Your task to perform on an android device: Open wifi settings Image 0: 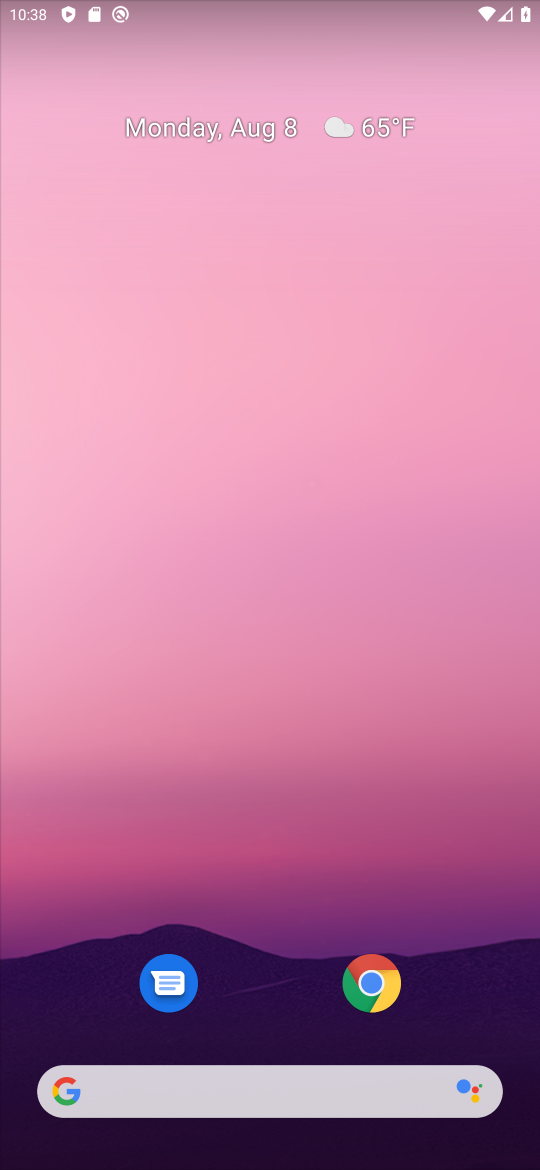
Step 0: drag from (326, 1054) to (307, 9)
Your task to perform on an android device: Open wifi settings Image 1: 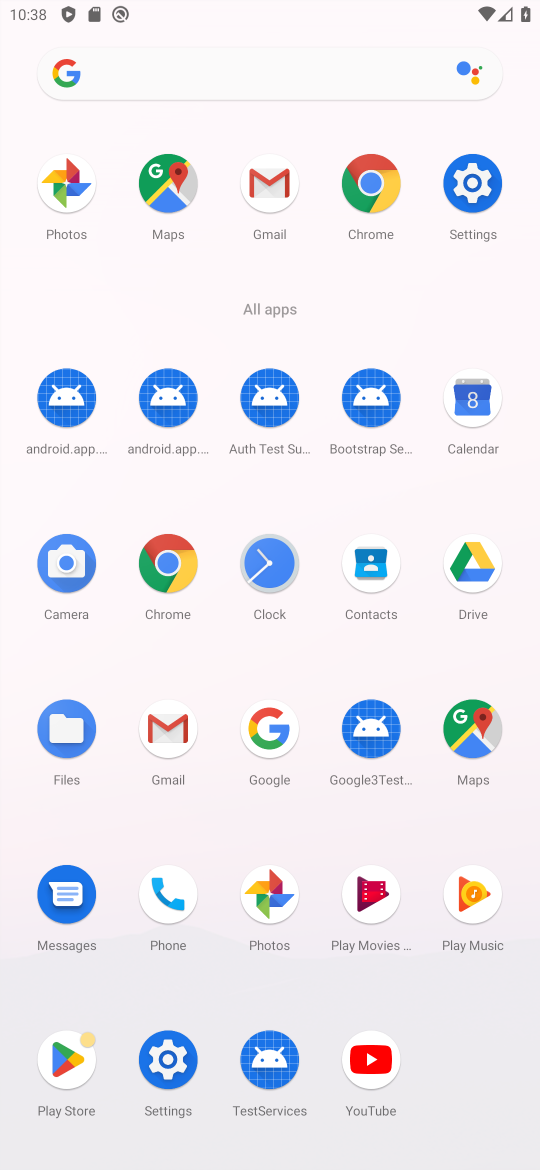
Step 1: click (162, 1087)
Your task to perform on an android device: Open wifi settings Image 2: 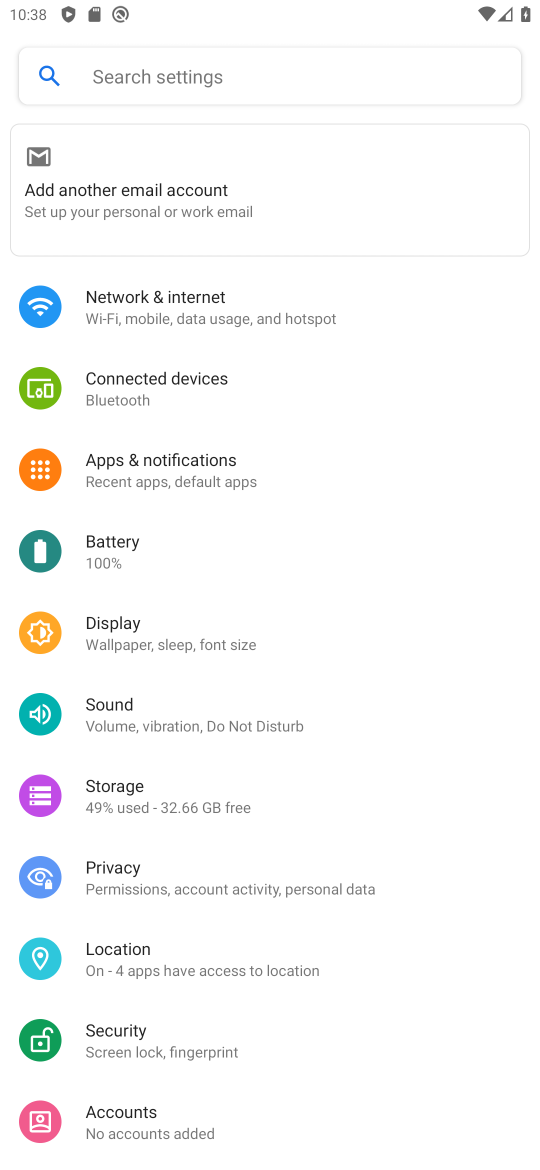
Step 2: click (167, 305)
Your task to perform on an android device: Open wifi settings Image 3: 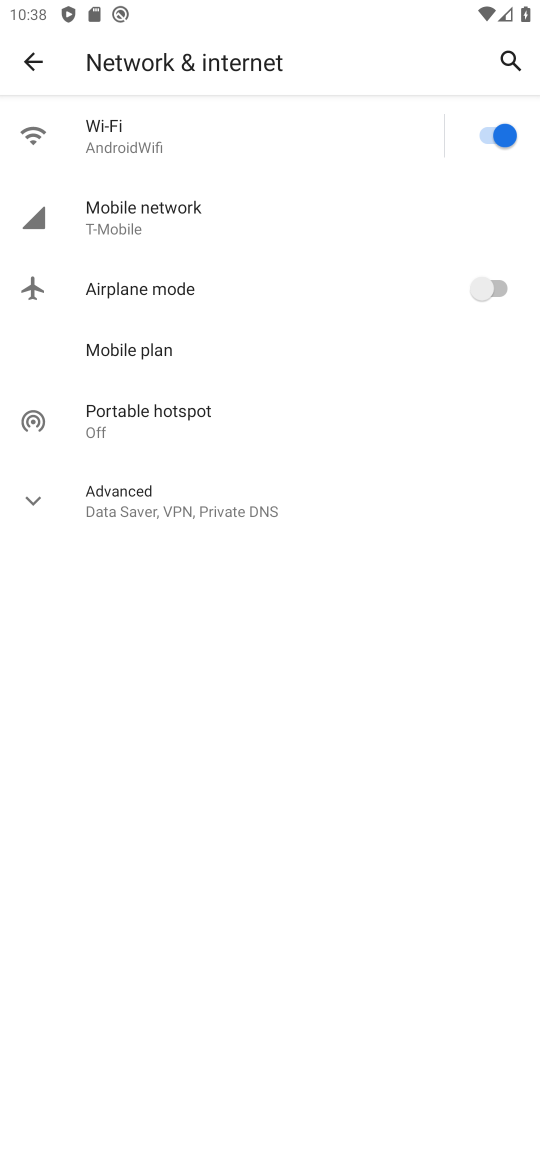
Step 3: task complete